Your task to perform on an android device: Search for Mexican restaurants on Maps Image 0: 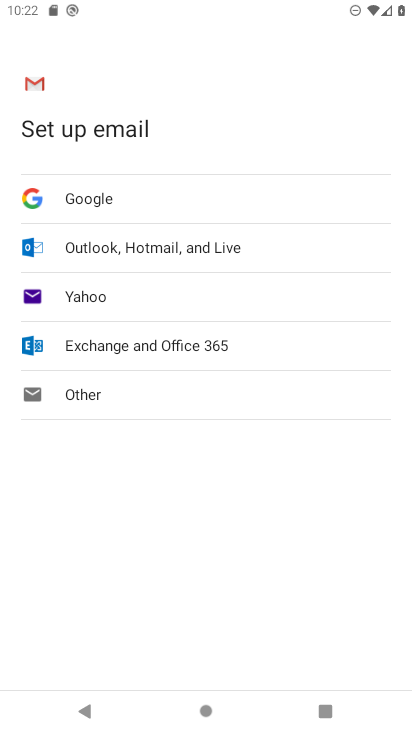
Step 0: press home button
Your task to perform on an android device: Search for Mexican restaurants on Maps Image 1: 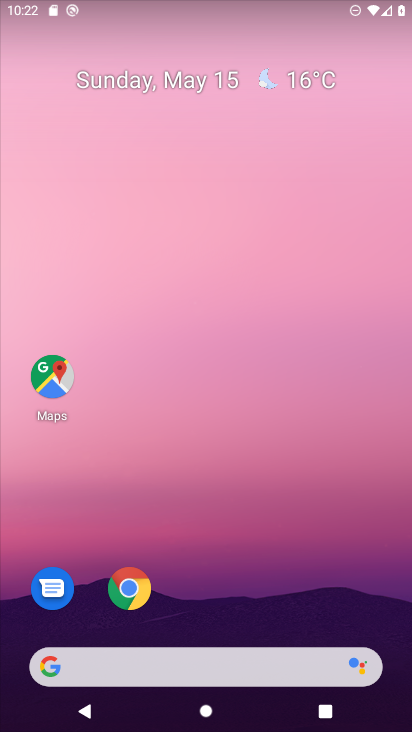
Step 1: click (59, 387)
Your task to perform on an android device: Search for Mexican restaurants on Maps Image 2: 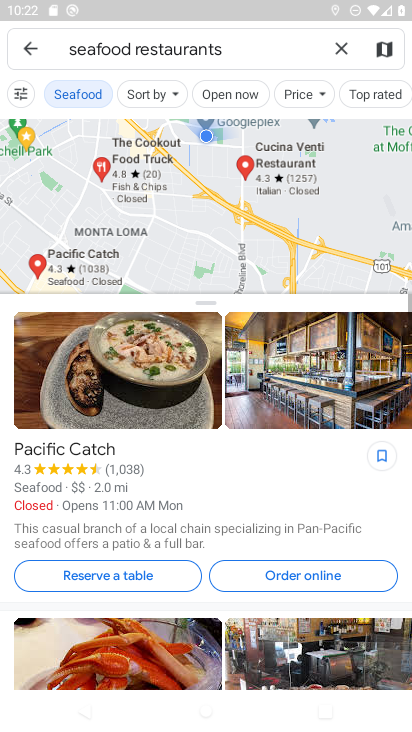
Step 2: click (339, 48)
Your task to perform on an android device: Search for Mexican restaurants on Maps Image 3: 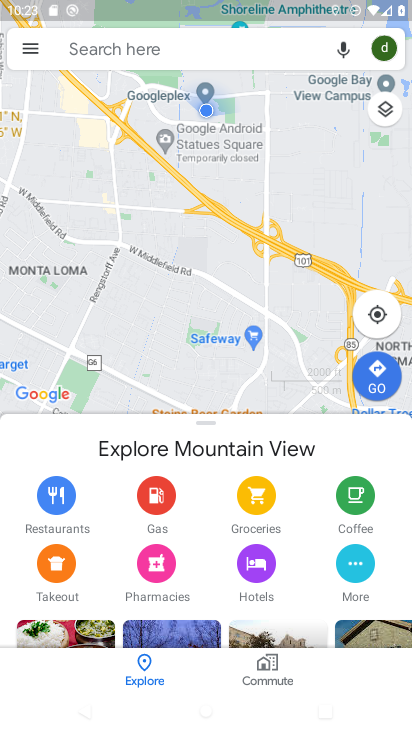
Step 3: click (109, 52)
Your task to perform on an android device: Search for Mexican restaurants on Maps Image 4: 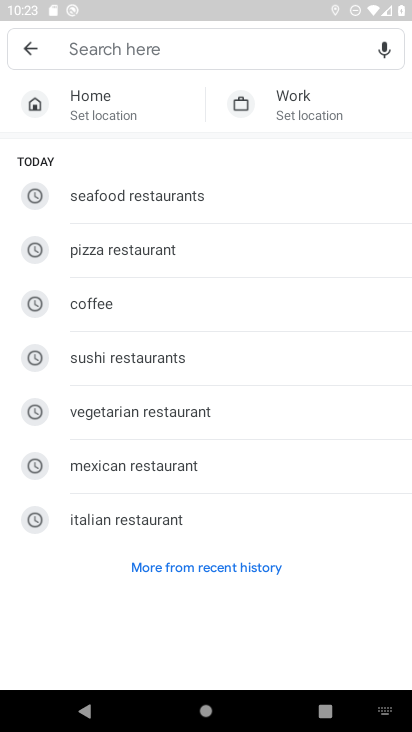
Step 4: click (165, 460)
Your task to perform on an android device: Search for Mexican restaurants on Maps Image 5: 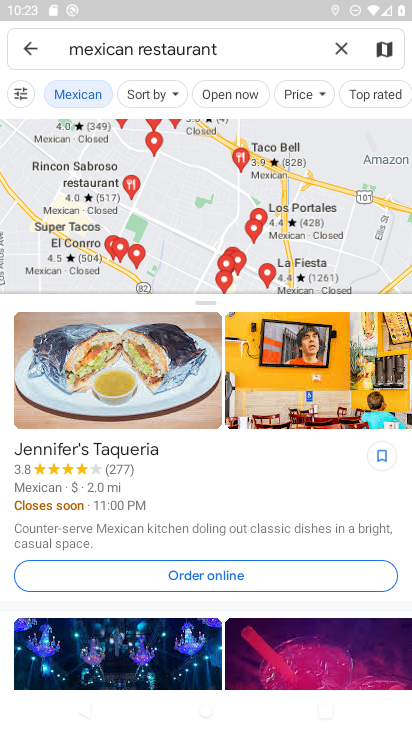
Step 5: task complete